Your task to perform on an android device: Open Chrome and go to the settings page Image 0: 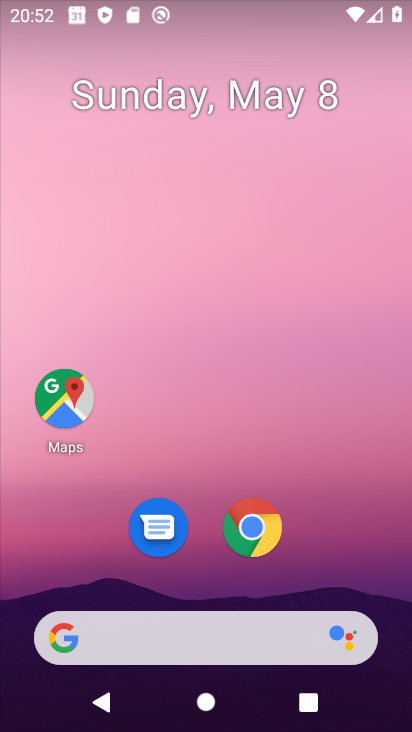
Step 0: click (251, 530)
Your task to perform on an android device: Open Chrome and go to the settings page Image 1: 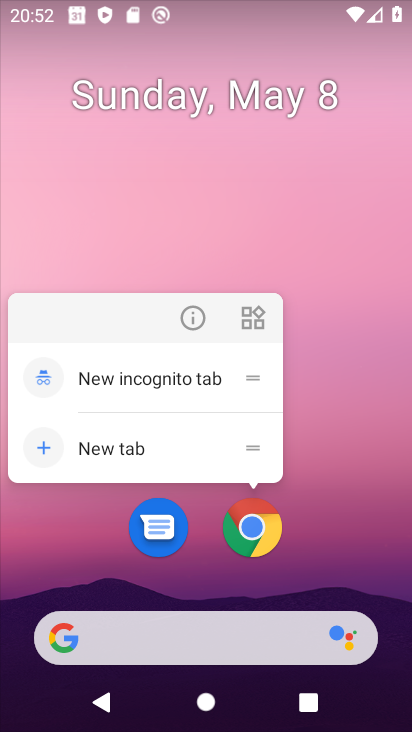
Step 1: click (251, 530)
Your task to perform on an android device: Open Chrome and go to the settings page Image 2: 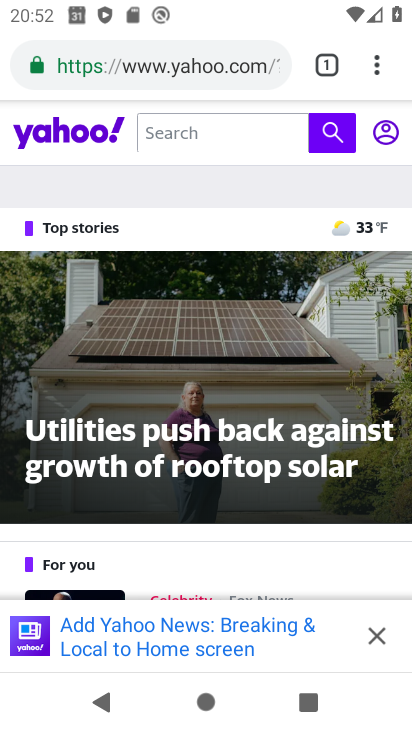
Step 2: click (375, 61)
Your task to perform on an android device: Open Chrome and go to the settings page Image 3: 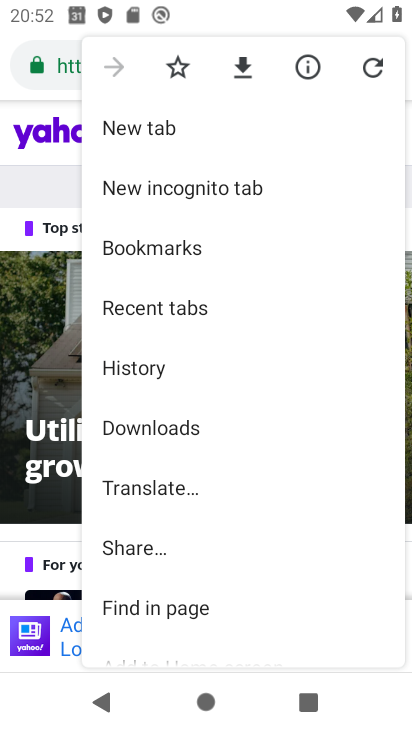
Step 3: drag from (195, 530) to (205, 144)
Your task to perform on an android device: Open Chrome and go to the settings page Image 4: 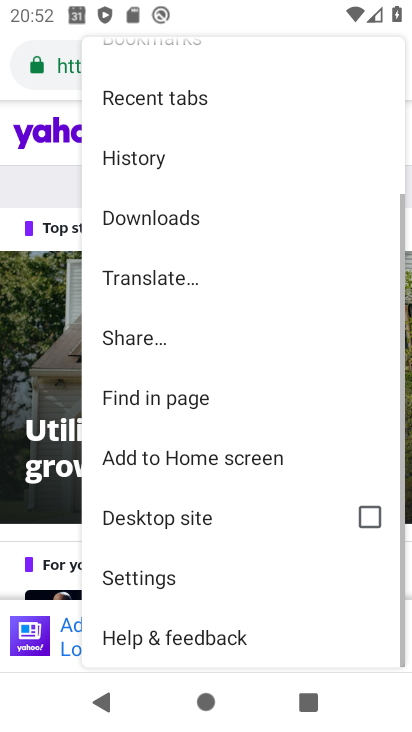
Step 4: click (183, 583)
Your task to perform on an android device: Open Chrome and go to the settings page Image 5: 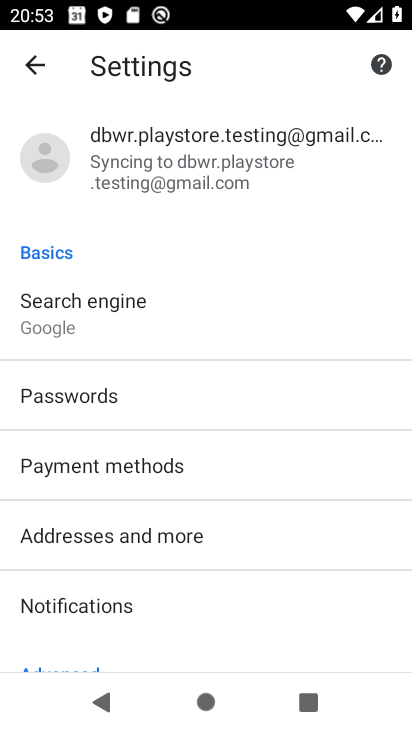
Step 5: task complete